Your task to perform on an android device: Go to battery settings Image 0: 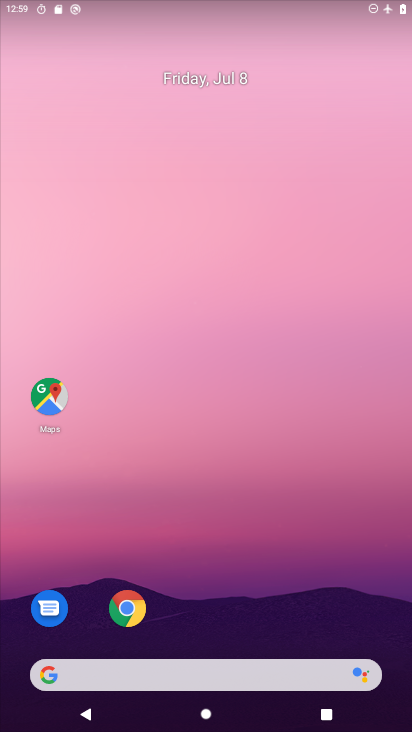
Step 0: drag from (235, 707) to (228, 132)
Your task to perform on an android device: Go to battery settings Image 1: 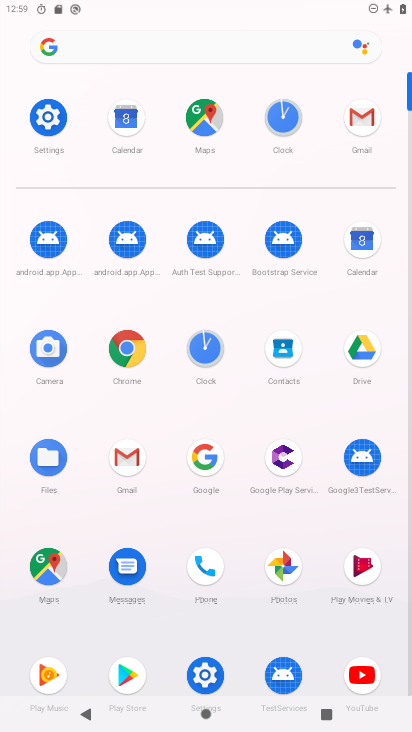
Step 1: click (44, 115)
Your task to perform on an android device: Go to battery settings Image 2: 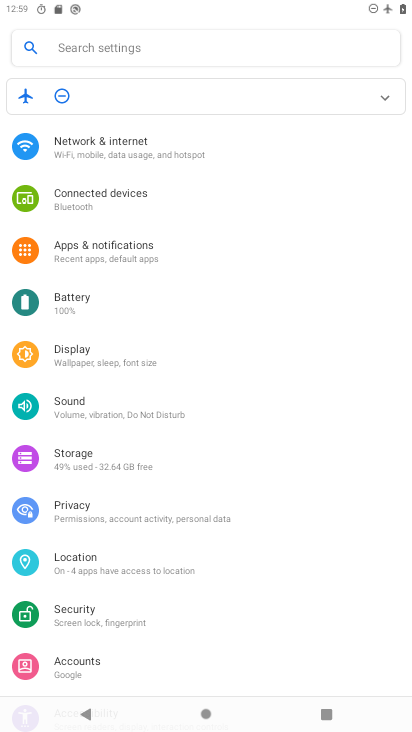
Step 2: click (83, 302)
Your task to perform on an android device: Go to battery settings Image 3: 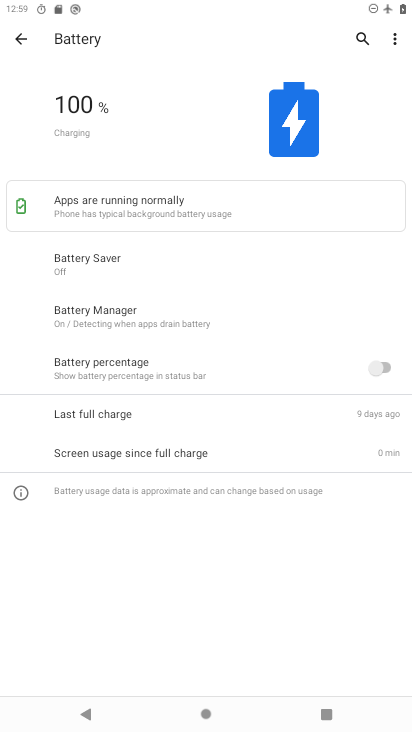
Step 3: task complete